Your task to perform on an android device: Search for sushi restaurants on Maps Image 0: 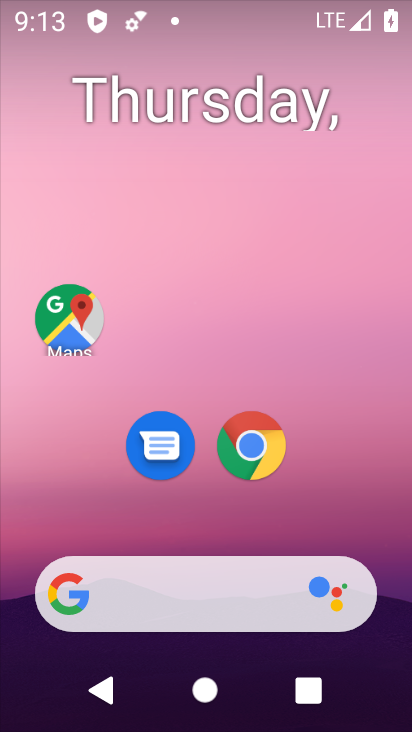
Step 0: drag from (8, 418) to (402, 308)
Your task to perform on an android device: Search for sushi restaurants on Maps Image 1: 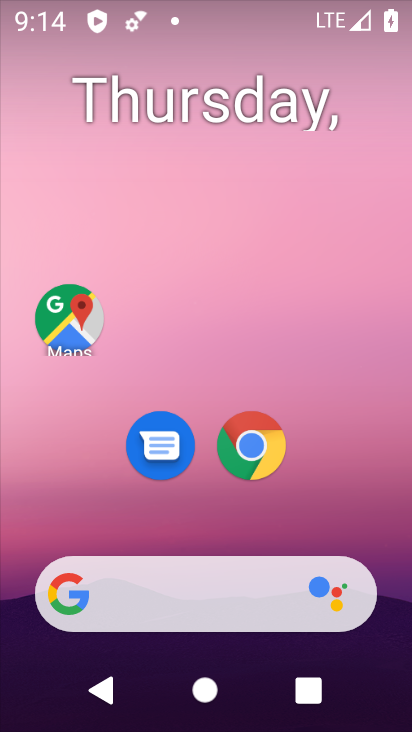
Step 1: drag from (0, 486) to (404, 295)
Your task to perform on an android device: Search for sushi restaurants on Maps Image 2: 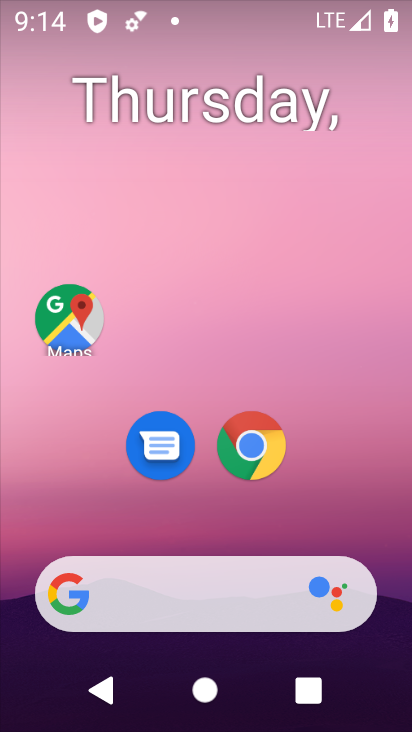
Step 2: drag from (68, 189) to (410, 190)
Your task to perform on an android device: Search for sushi restaurants on Maps Image 3: 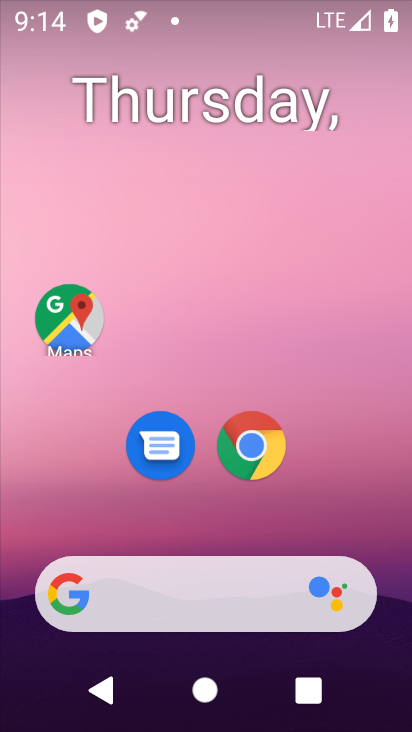
Step 3: drag from (1, 420) to (410, 277)
Your task to perform on an android device: Search for sushi restaurants on Maps Image 4: 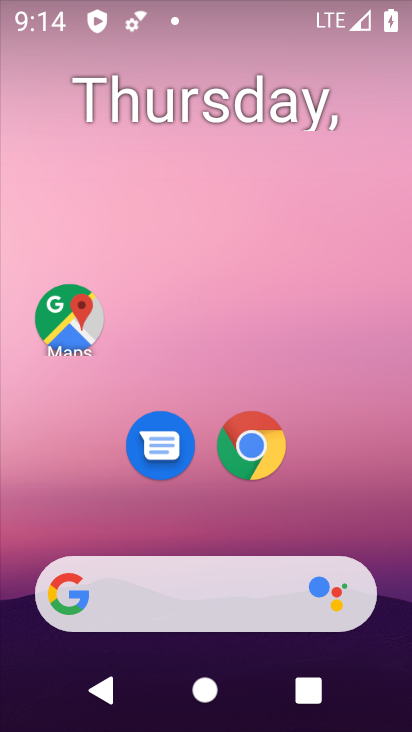
Step 4: drag from (2, 215) to (202, 184)
Your task to perform on an android device: Search for sushi restaurants on Maps Image 5: 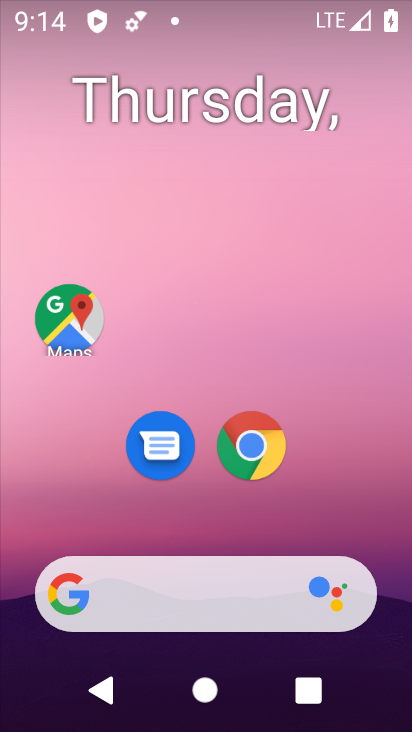
Step 5: click (63, 325)
Your task to perform on an android device: Search for sushi restaurants on Maps Image 6: 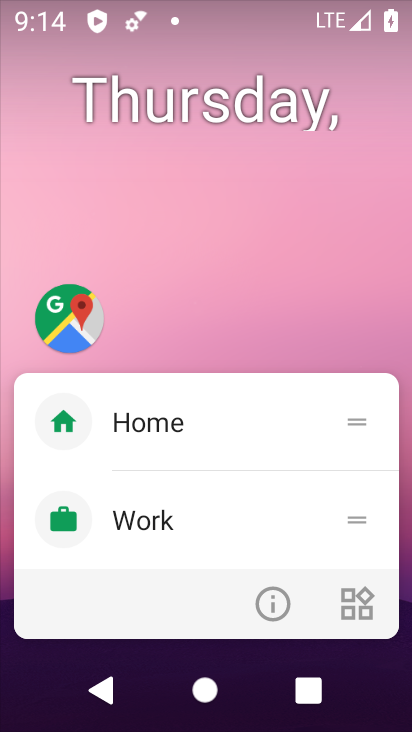
Step 6: click (67, 320)
Your task to perform on an android device: Search for sushi restaurants on Maps Image 7: 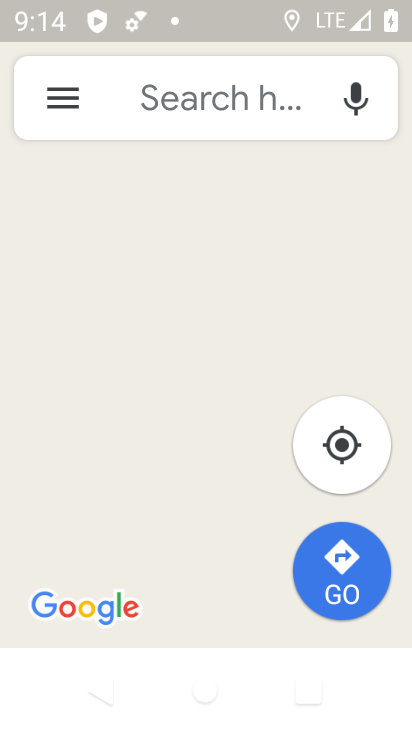
Step 7: click (168, 112)
Your task to perform on an android device: Search for sushi restaurants on Maps Image 8: 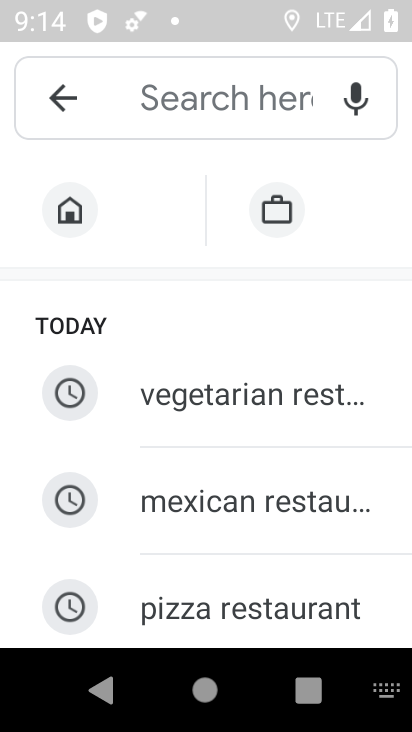
Step 8: type "sushi restaurants "
Your task to perform on an android device: Search for sushi restaurants on Maps Image 9: 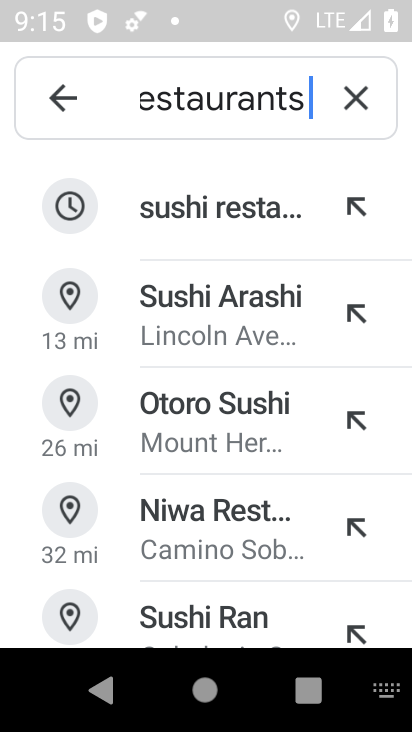
Step 9: click (246, 209)
Your task to perform on an android device: Search for sushi restaurants on Maps Image 10: 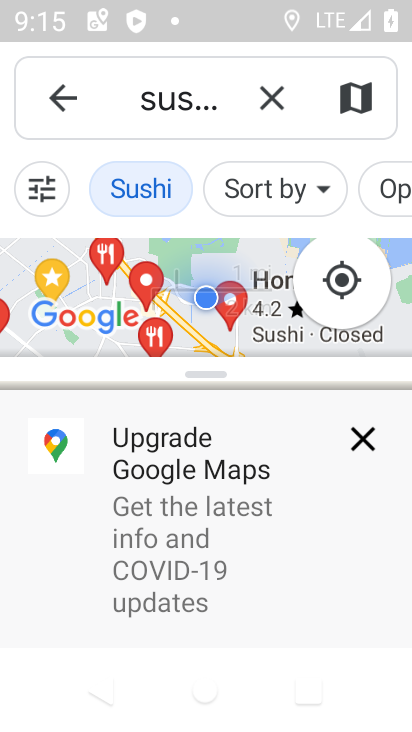
Step 10: click (356, 448)
Your task to perform on an android device: Search for sushi restaurants on Maps Image 11: 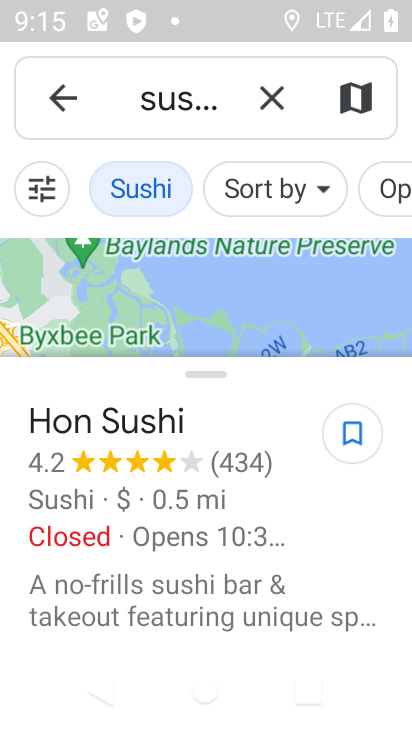
Step 11: task complete